Your task to perform on an android device: Search for vegetarian restaurants on Maps Image 0: 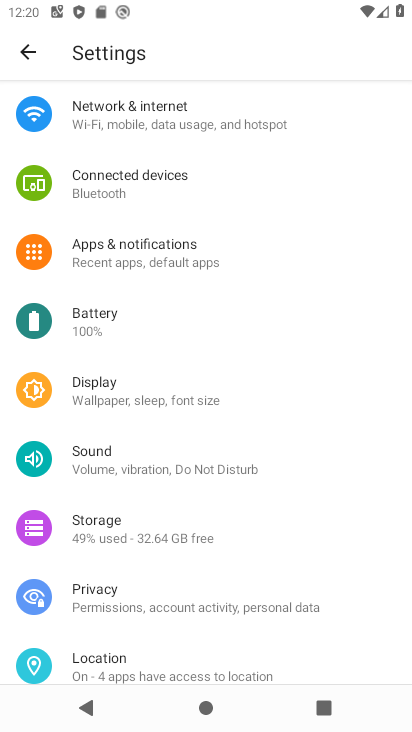
Step 0: press home button
Your task to perform on an android device: Search for vegetarian restaurants on Maps Image 1: 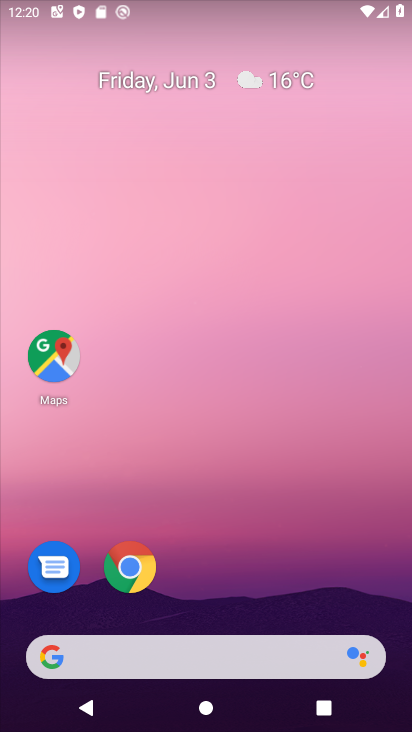
Step 1: click (71, 352)
Your task to perform on an android device: Search for vegetarian restaurants on Maps Image 2: 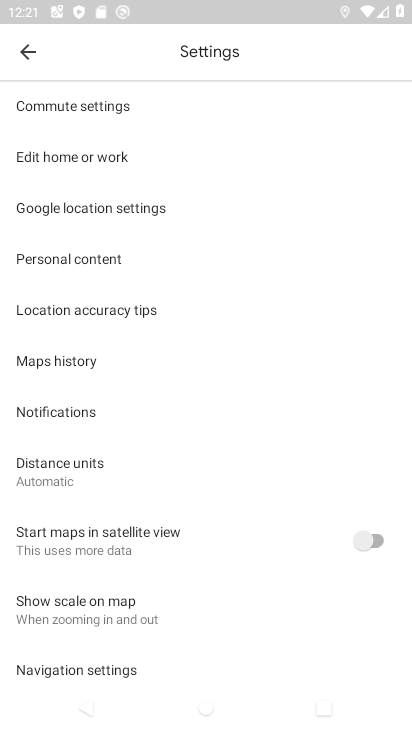
Step 2: click (38, 57)
Your task to perform on an android device: Search for vegetarian restaurants on Maps Image 3: 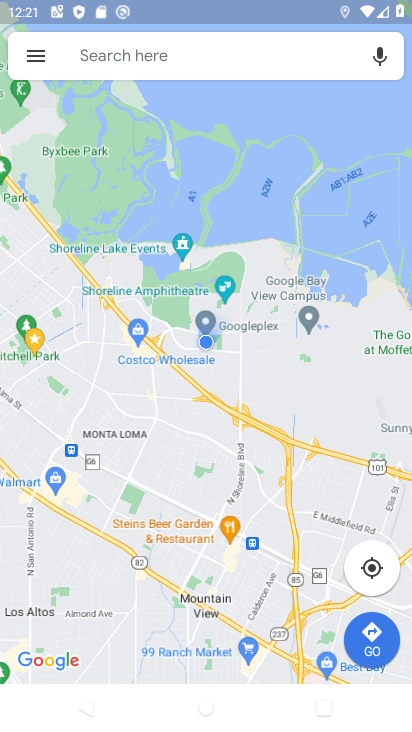
Step 3: click (114, 53)
Your task to perform on an android device: Search for vegetarian restaurants on Maps Image 4: 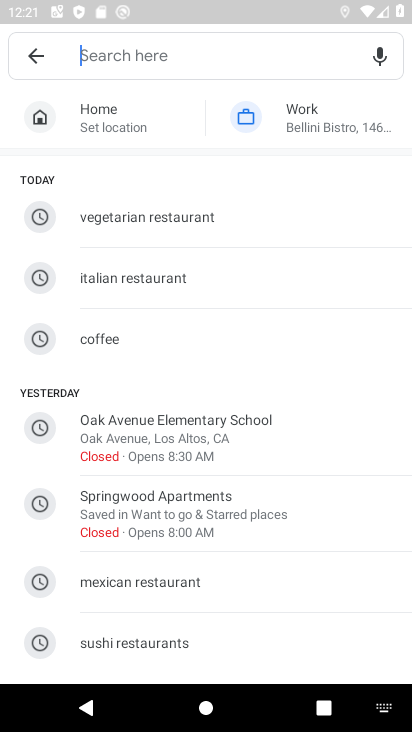
Step 4: click (342, 216)
Your task to perform on an android device: Search for vegetarian restaurants on Maps Image 5: 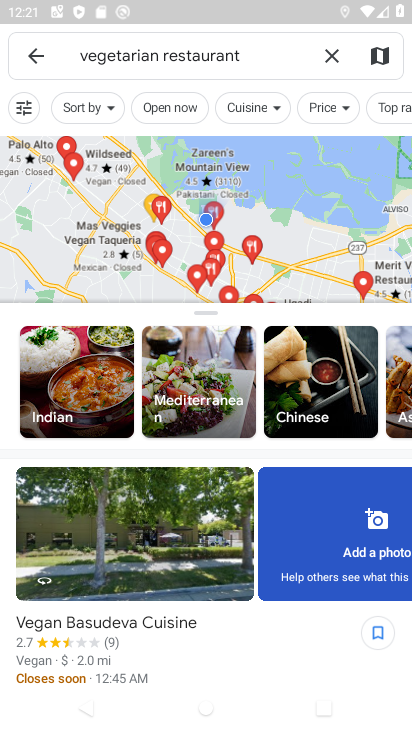
Step 5: task complete